Your task to perform on an android device: Open settings Image 0: 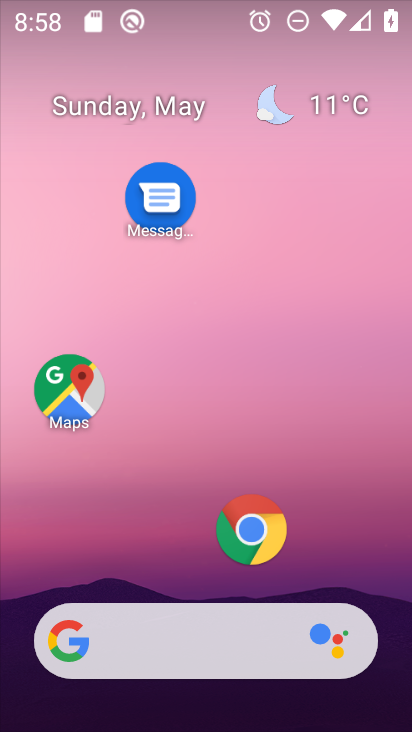
Step 0: drag from (202, 575) to (299, 58)
Your task to perform on an android device: Open settings Image 1: 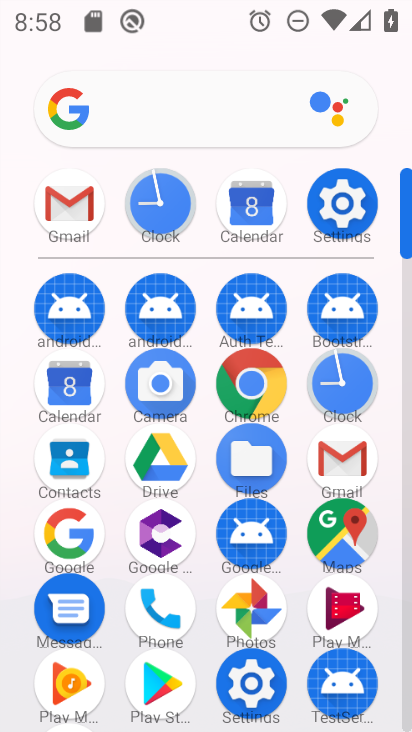
Step 1: click (351, 204)
Your task to perform on an android device: Open settings Image 2: 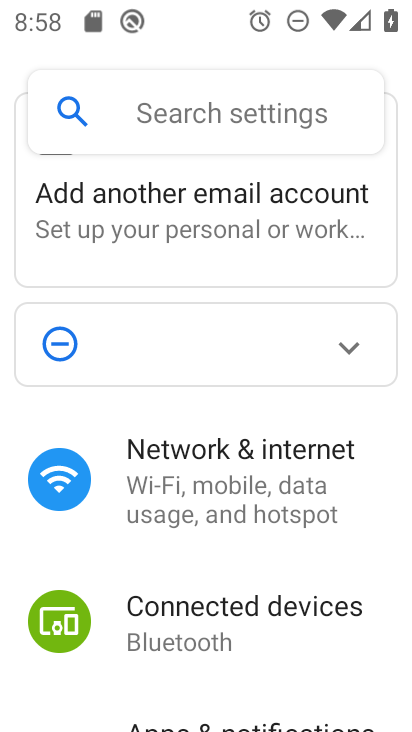
Step 2: task complete